Your task to perform on an android device: Open Google Chrome and open the bookmarks view Image 0: 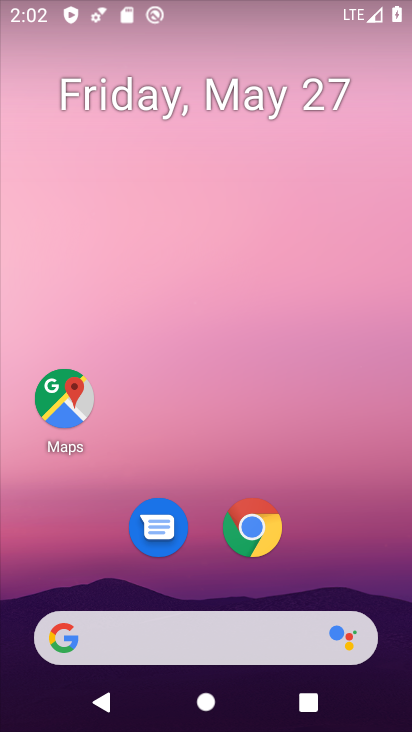
Step 0: click (263, 519)
Your task to perform on an android device: Open Google Chrome and open the bookmarks view Image 1: 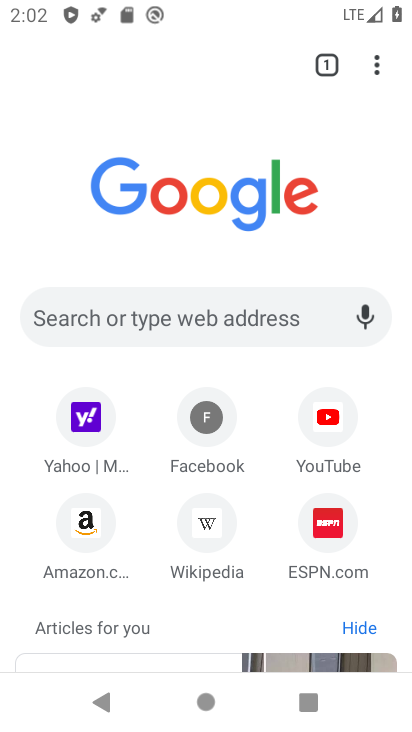
Step 1: click (377, 60)
Your task to perform on an android device: Open Google Chrome and open the bookmarks view Image 2: 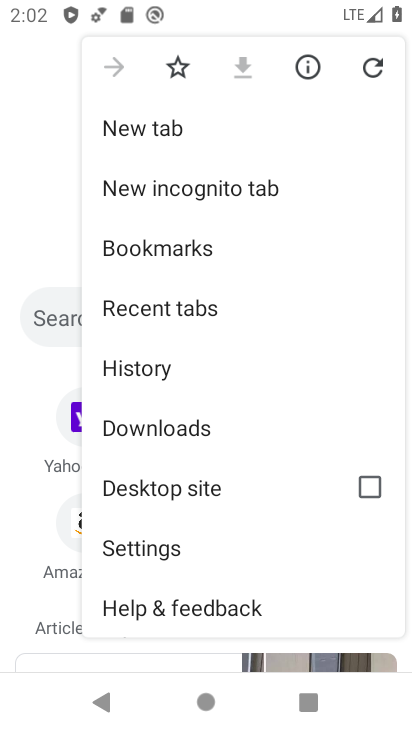
Step 2: click (229, 253)
Your task to perform on an android device: Open Google Chrome and open the bookmarks view Image 3: 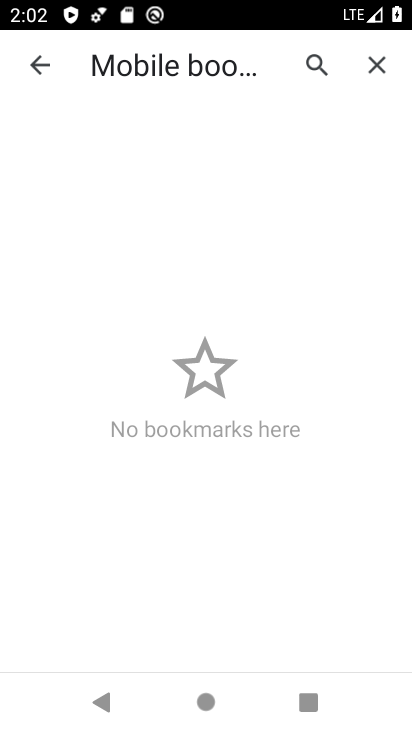
Step 3: task complete